Your task to perform on an android device: Clear all items from cart on walmart.com. Search for "sony triple a" on walmart.com, select the first entry, add it to the cart, then select checkout. Image 0: 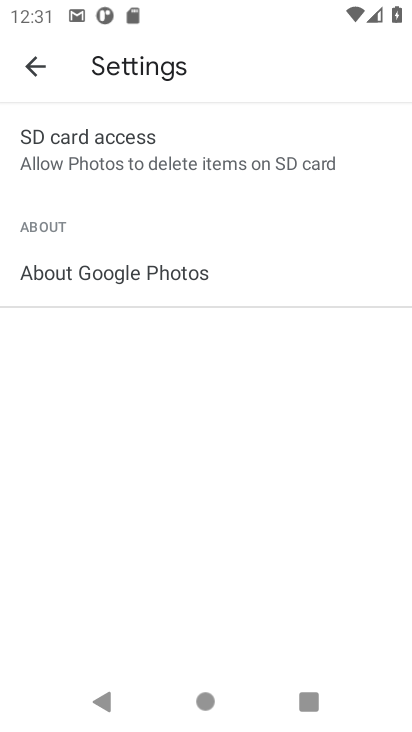
Step 0: press home button
Your task to perform on an android device: Clear all items from cart on walmart.com. Search for "sony triple a" on walmart.com, select the first entry, add it to the cart, then select checkout. Image 1: 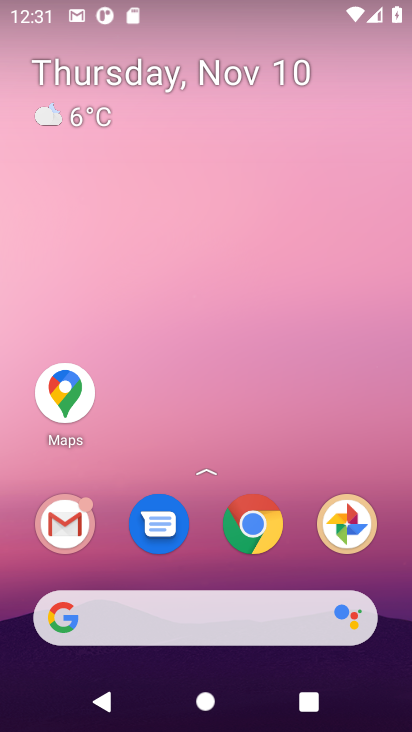
Step 1: click (257, 524)
Your task to perform on an android device: Clear all items from cart on walmart.com. Search for "sony triple a" on walmart.com, select the first entry, add it to the cart, then select checkout. Image 2: 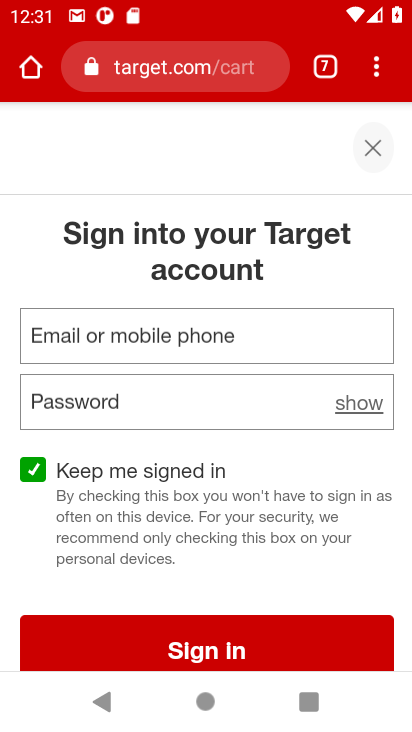
Step 2: click (324, 68)
Your task to perform on an android device: Clear all items from cart on walmart.com. Search for "sony triple a" on walmart.com, select the first entry, add it to the cart, then select checkout. Image 3: 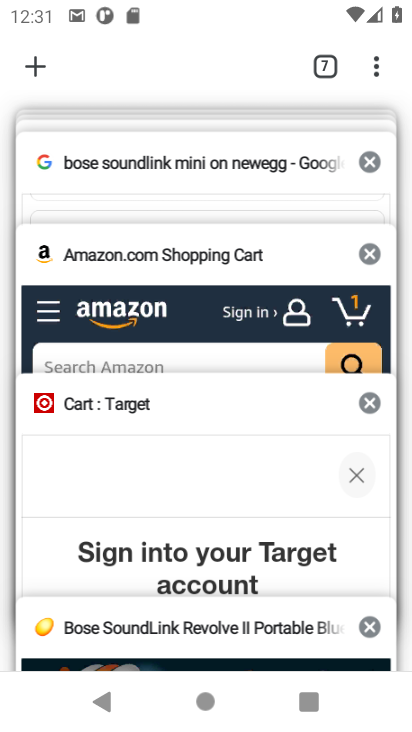
Step 3: drag from (203, 160) to (170, 335)
Your task to perform on an android device: Clear all items from cart on walmart.com. Search for "sony triple a" on walmart.com, select the first entry, add it to the cart, then select checkout. Image 4: 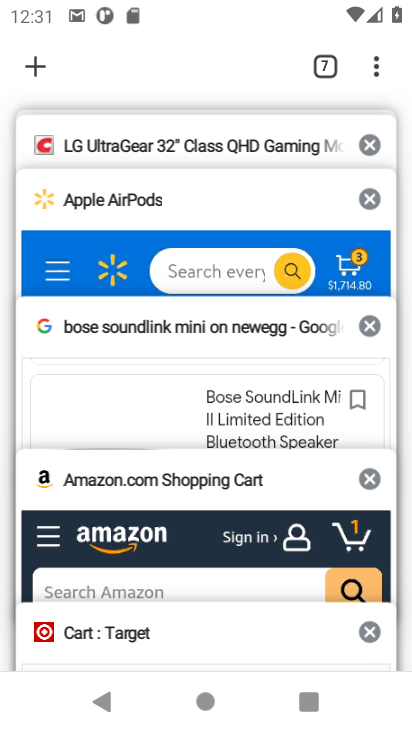
Step 4: click (197, 166)
Your task to perform on an android device: Clear all items from cart on walmart.com. Search for "sony triple a" on walmart.com, select the first entry, add it to the cart, then select checkout. Image 5: 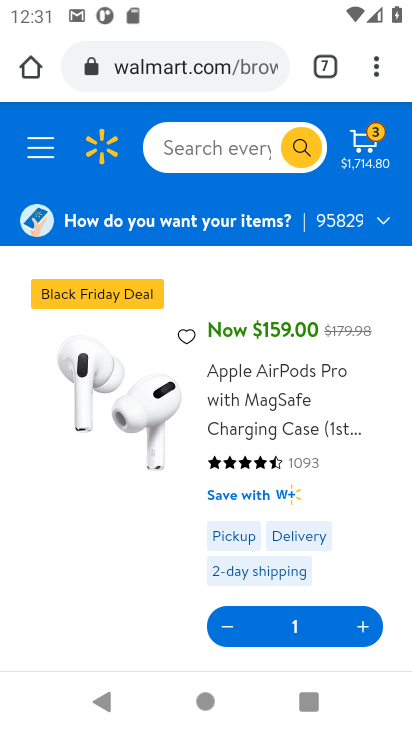
Step 5: click (194, 212)
Your task to perform on an android device: Clear all items from cart on walmart.com. Search for "sony triple a" on walmart.com, select the first entry, add it to the cart, then select checkout. Image 6: 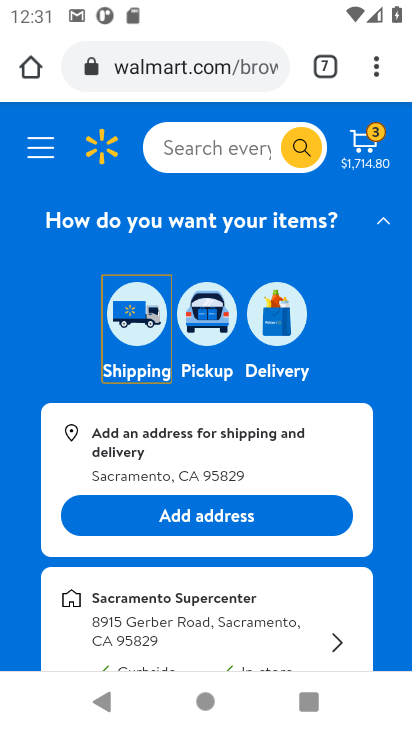
Step 6: click (373, 136)
Your task to perform on an android device: Clear all items from cart on walmart.com. Search for "sony triple a" on walmart.com, select the first entry, add it to the cart, then select checkout. Image 7: 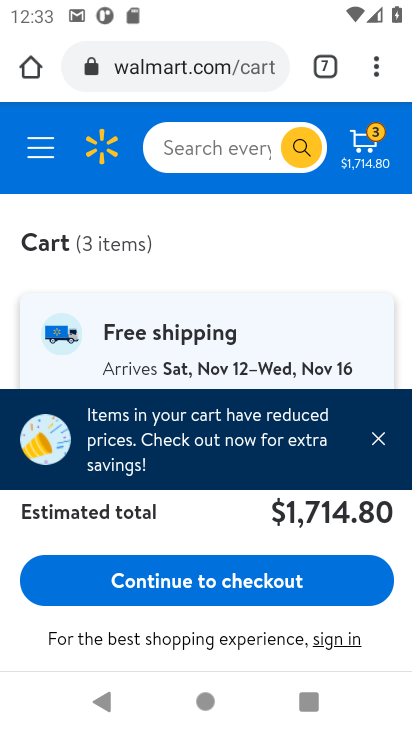
Step 7: click (190, 147)
Your task to perform on an android device: Clear all items from cart on walmart.com. Search for "sony triple a" on walmart.com, select the first entry, add it to the cart, then select checkout. Image 8: 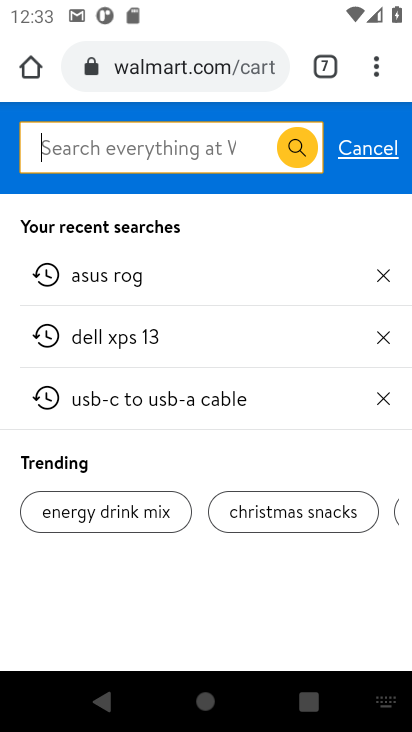
Step 8: type "sony triple a"
Your task to perform on an android device: Clear all items from cart on walmart.com. Search for "sony triple a" on walmart.com, select the first entry, add it to the cart, then select checkout. Image 9: 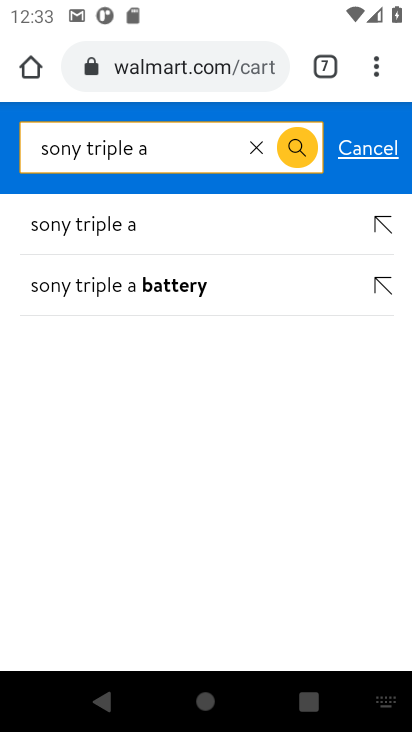
Step 9: click (110, 289)
Your task to perform on an android device: Clear all items from cart on walmart.com. Search for "sony triple a" on walmart.com, select the first entry, add it to the cart, then select checkout. Image 10: 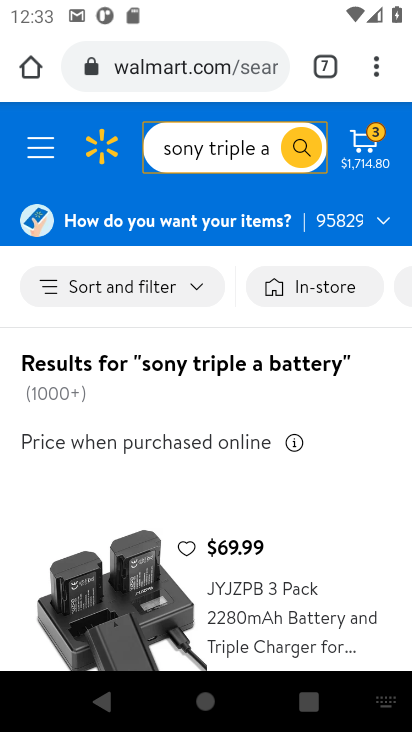
Step 10: drag from (322, 527) to (407, 313)
Your task to perform on an android device: Clear all items from cart on walmart.com. Search for "sony triple a" on walmart.com, select the first entry, add it to the cart, then select checkout. Image 11: 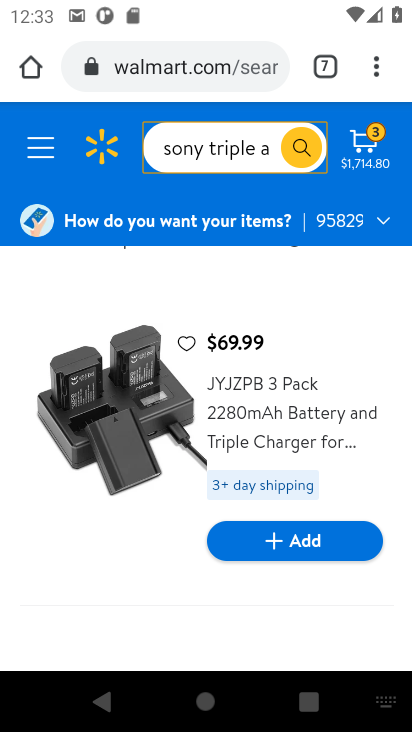
Step 11: click (314, 547)
Your task to perform on an android device: Clear all items from cart on walmart.com. Search for "sony triple a" on walmart.com, select the first entry, add it to the cart, then select checkout. Image 12: 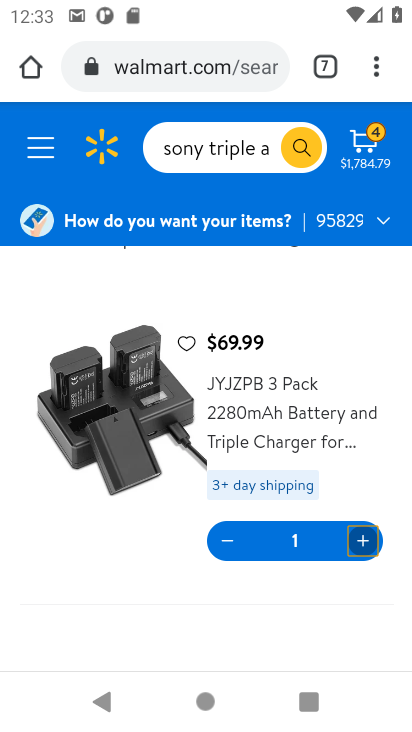
Step 12: task complete